Your task to perform on an android device: toggle data saver in the chrome app Image 0: 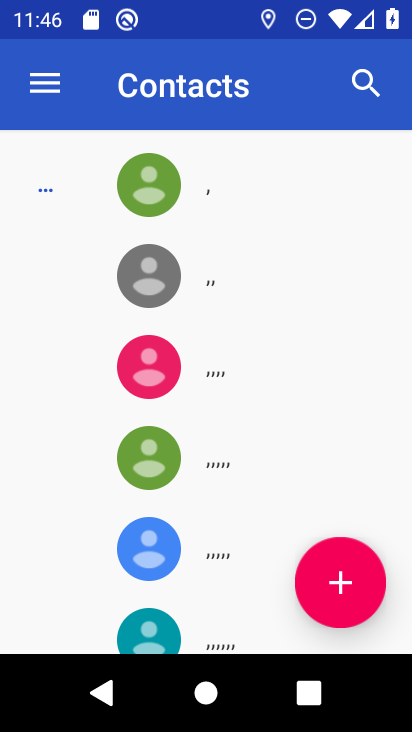
Step 0: press home button
Your task to perform on an android device: toggle data saver in the chrome app Image 1: 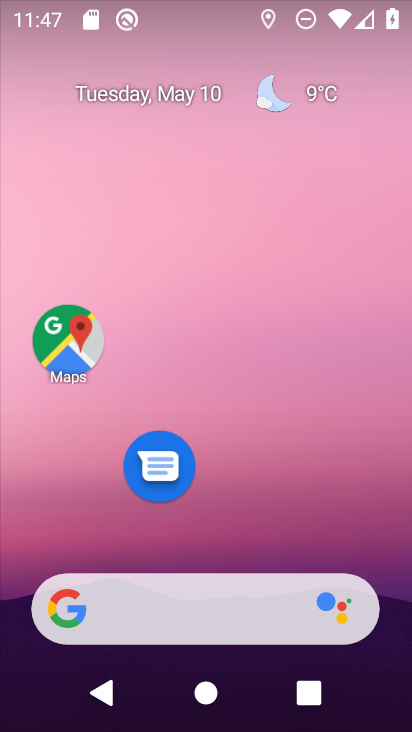
Step 1: drag from (258, 539) to (317, 45)
Your task to perform on an android device: toggle data saver in the chrome app Image 2: 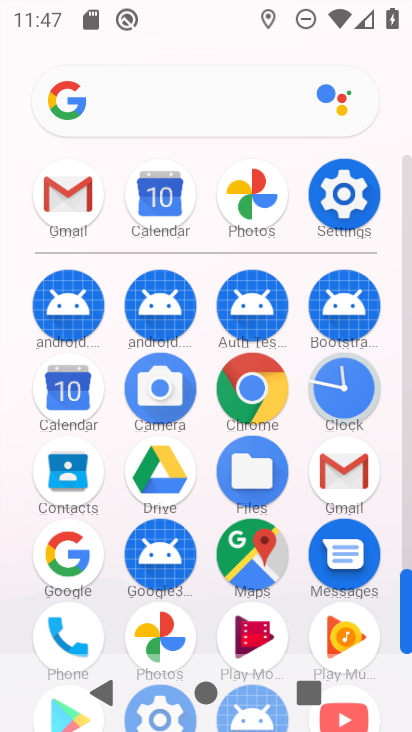
Step 2: click (272, 385)
Your task to perform on an android device: toggle data saver in the chrome app Image 3: 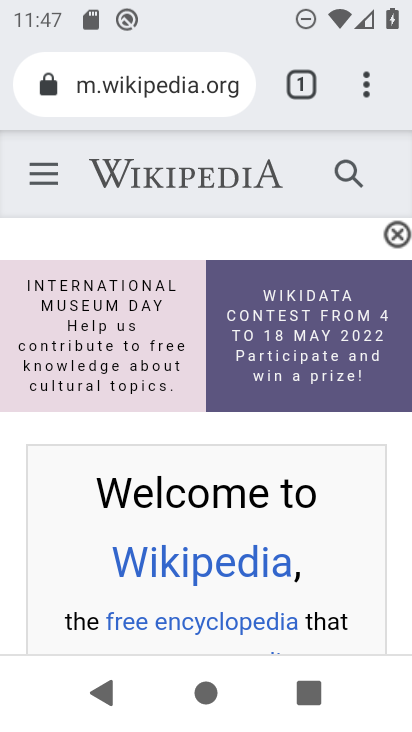
Step 3: click (367, 86)
Your task to perform on an android device: toggle data saver in the chrome app Image 4: 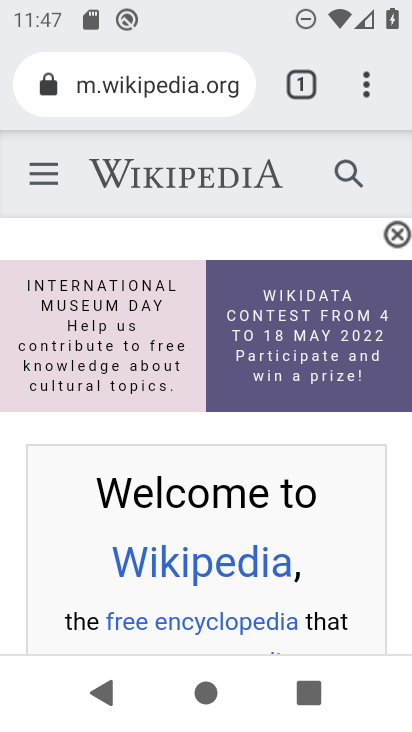
Step 4: click (385, 103)
Your task to perform on an android device: toggle data saver in the chrome app Image 5: 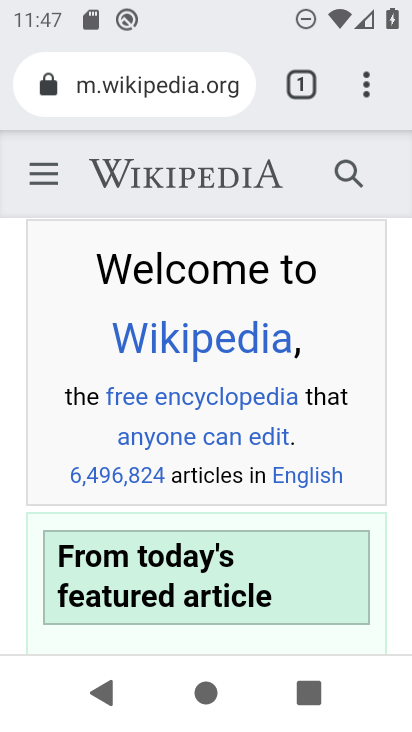
Step 5: click (400, 69)
Your task to perform on an android device: toggle data saver in the chrome app Image 6: 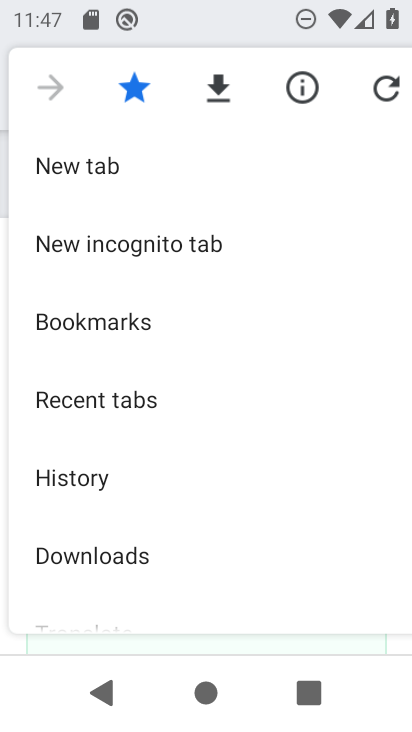
Step 6: drag from (167, 540) to (178, 361)
Your task to perform on an android device: toggle data saver in the chrome app Image 7: 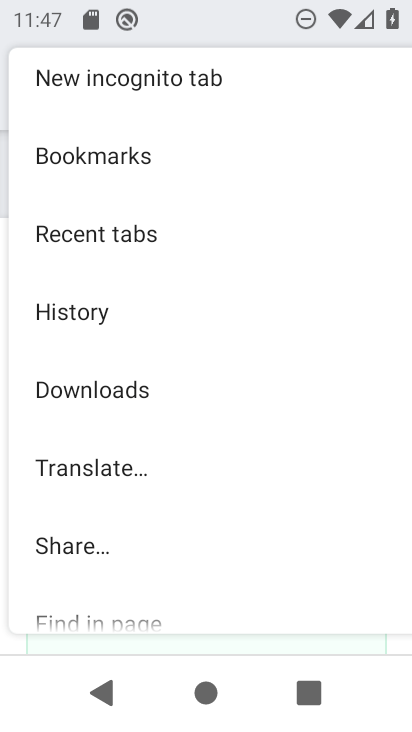
Step 7: drag from (139, 529) to (173, 345)
Your task to perform on an android device: toggle data saver in the chrome app Image 8: 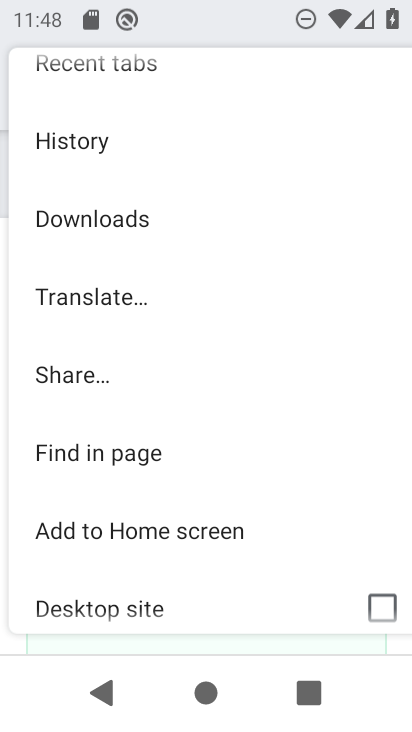
Step 8: drag from (131, 555) to (209, 345)
Your task to perform on an android device: toggle data saver in the chrome app Image 9: 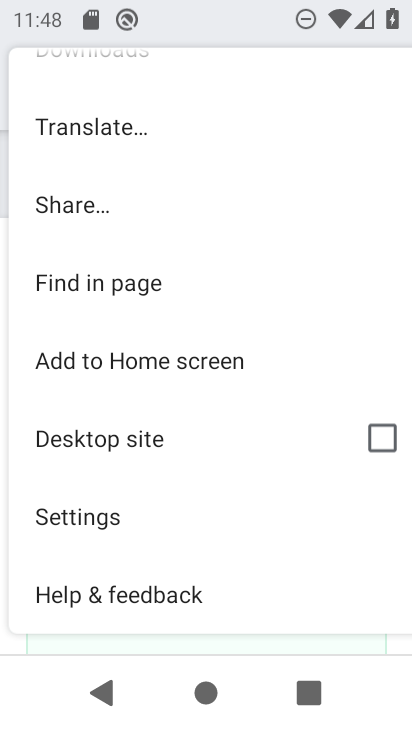
Step 9: click (70, 500)
Your task to perform on an android device: toggle data saver in the chrome app Image 10: 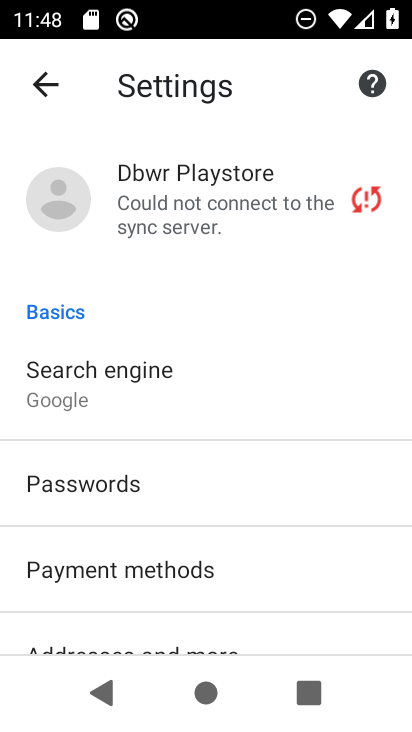
Step 10: drag from (108, 600) to (155, 255)
Your task to perform on an android device: toggle data saver in the chrome app Image 11: 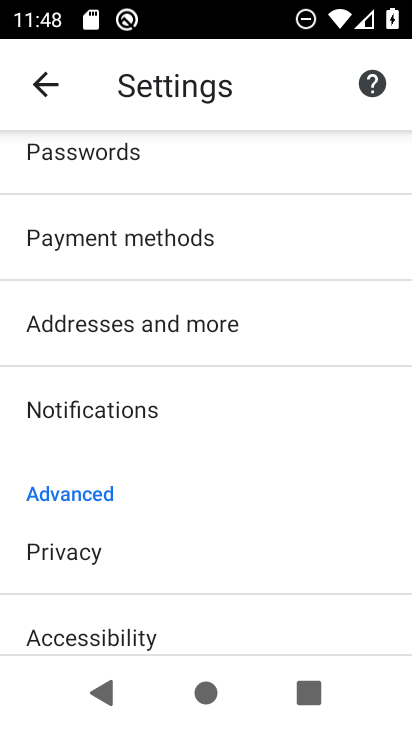
Step 11: drag from (159, 546) to (156, 312)
Your task to perform on an android device: toggle data saver in the chrome app Image 12: 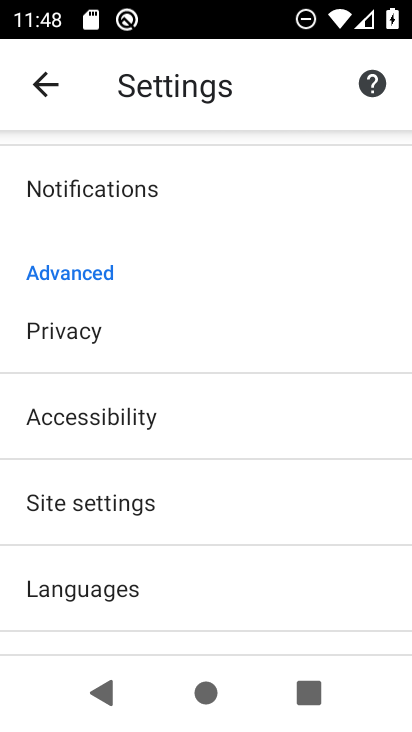
Step 12: drag from (141, 587) to (154, 371)
Your task to perform on an android device: toggle data saver in the chrome app Image 13: 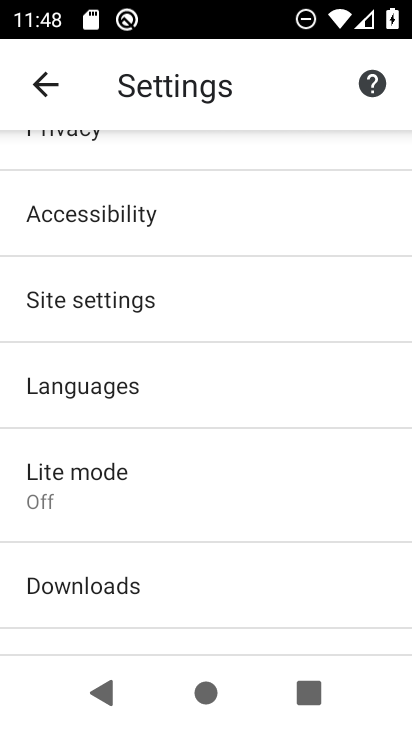
Step 13: click (96, 511)
Your task to perform on an android device: toggle data saver in the chrome app Image 14: 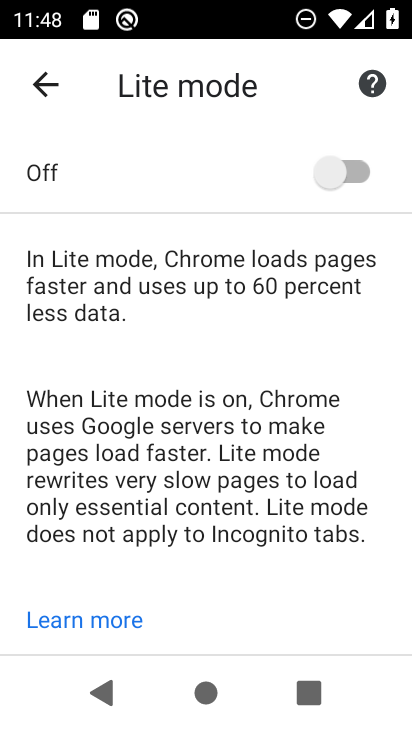
Step 14: click (341, 193)
Your task to perform on an android device: toggle data saver in the chrome app Image 15: 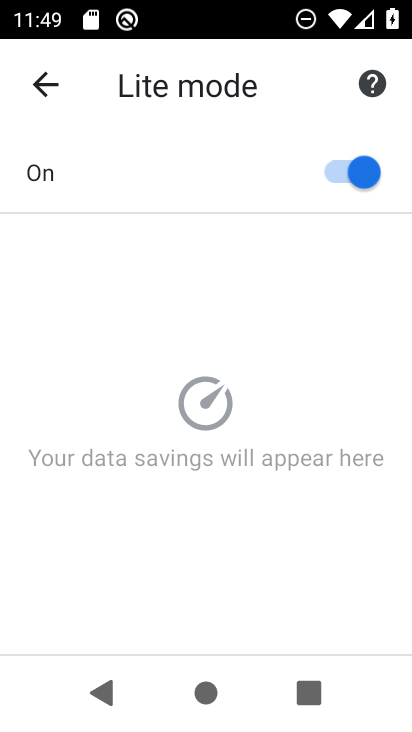
Step 15: task complete